Your task to perform on an android device: Open privacy settings Image 0: 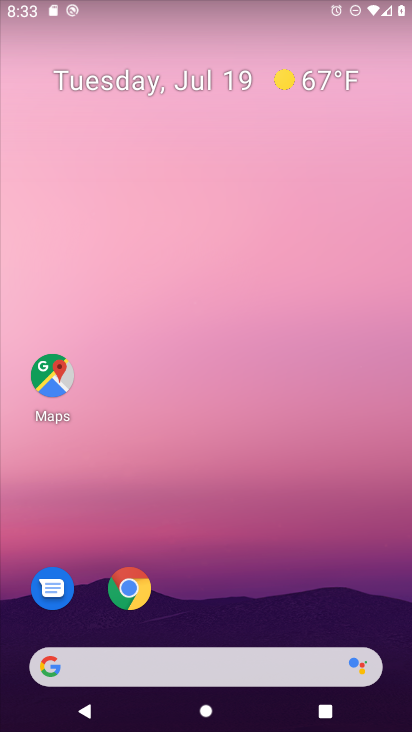
Step 0: drag from (367, 587) to (355, 29)
Your task to perform on an android device: Open privacy settings Image 1: 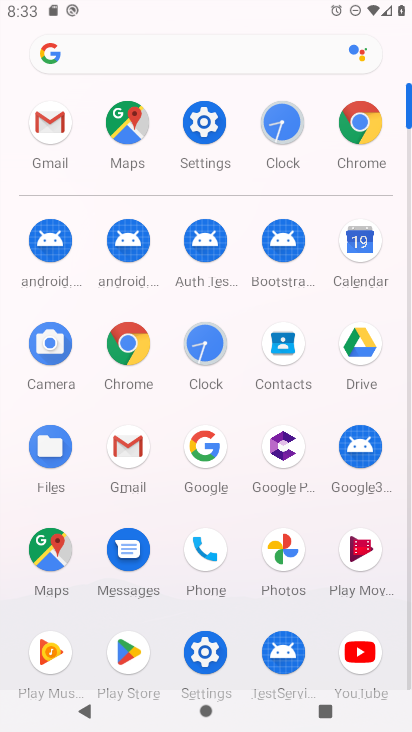
Step 1: click (208, 127)
Your task to perform on an android device: Open privacy settings Image 2: 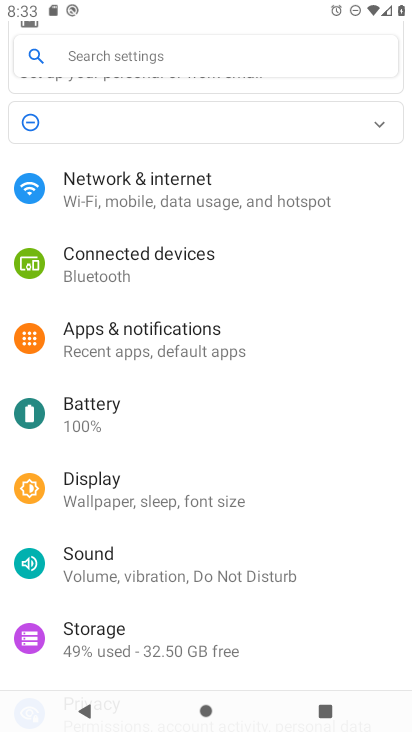
Step 2: drag from (317, 479) to (317, 345)
Your task to perform on an android device: Open privacy settings Image 3: 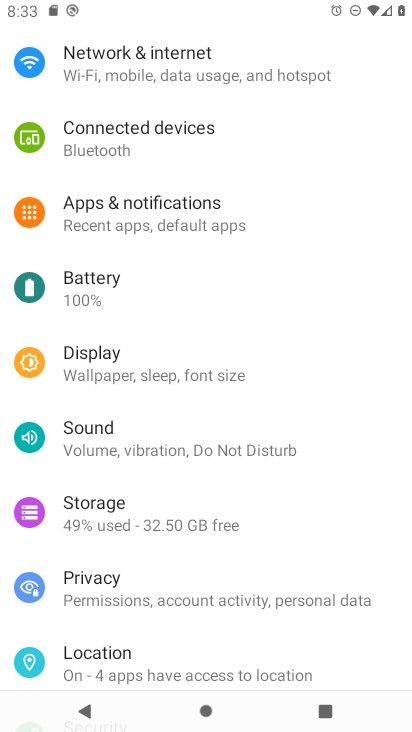
Step 3: drag from (316, 504) to (348, 230)
Your task to perform on an android device: Open privacy settings Image 4: 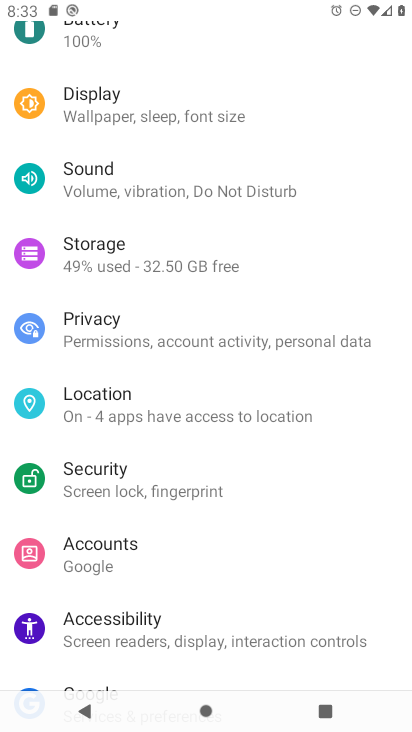
Step 4: drag from (338, 473) to (364, 318)
Your task to perform on an android device: Open privacy settings Image 5: 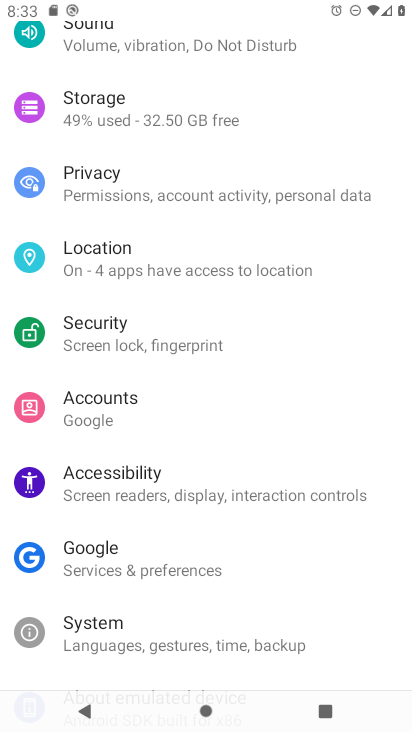
Step 5: drag from (339, 550) to (365, 346)
Your task to perform on an android device: Open privacy settings Image 6: 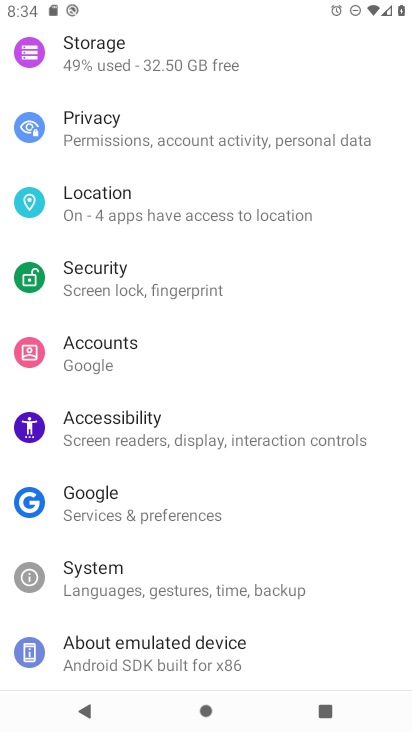
Step 6: drag from (338, 553) to (355, 315)
Your task to perform on an android device: Open privacy settings Image 7: 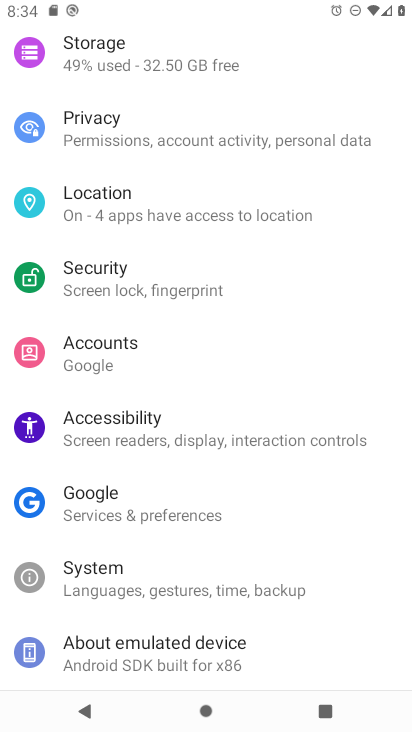
Step 7: click (213, 126)
Your task to perform on an android device: Open privacy settings Image 8: 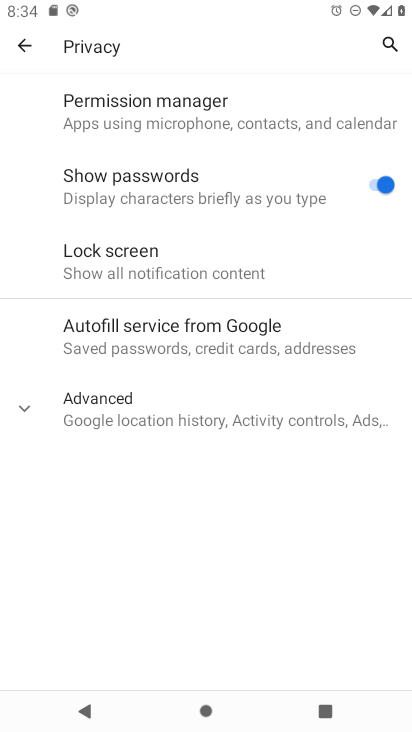
Step 8: task complete